Your task to perform on an android device: open a new tab in the chrome app Image 0: 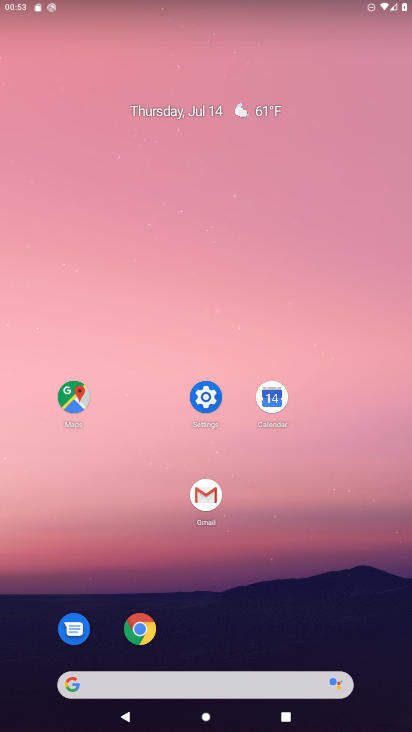
Step 0: click (132, 633)
Your task to perform on an android device: open a new tab in the chrome app Image 1: 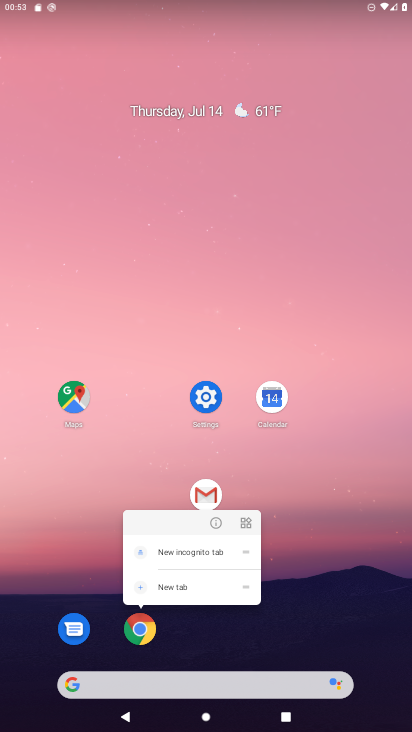
Step 1: click (139, 622)
Your task to perform on an android device: open a new tab in the chrome app Image 2: 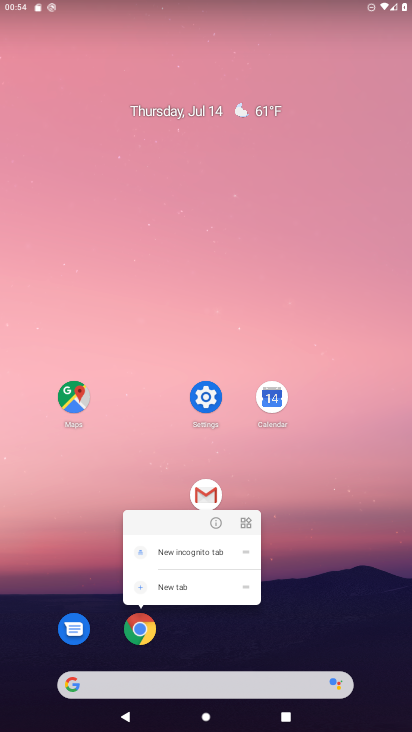
Step 2: click (139, 622)
Your task to perform on an android device: open a new tab in the chrome app Image 3: 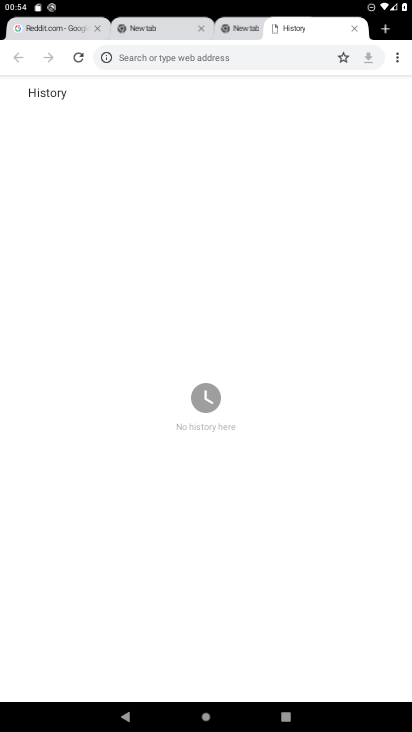
Step 3: click (397, 57)
Your task to perform on an android device: open a new tab in the chrome app Image 4: 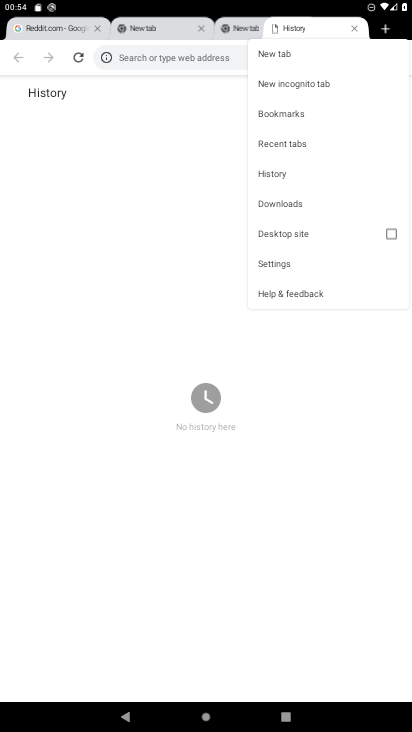
Step 4: click (279, 53)
Your task to perform on an android device: open a new tab in the chrome app Image 5: 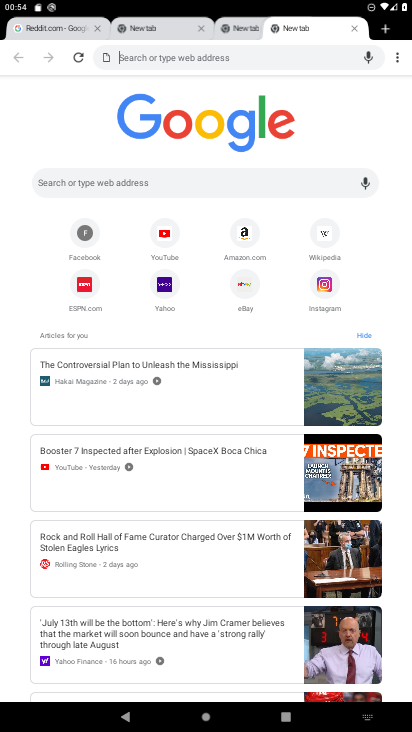
Step 5: task complete